Your task to perform on an android device: choose inbox layout in the gmail app Image 0: 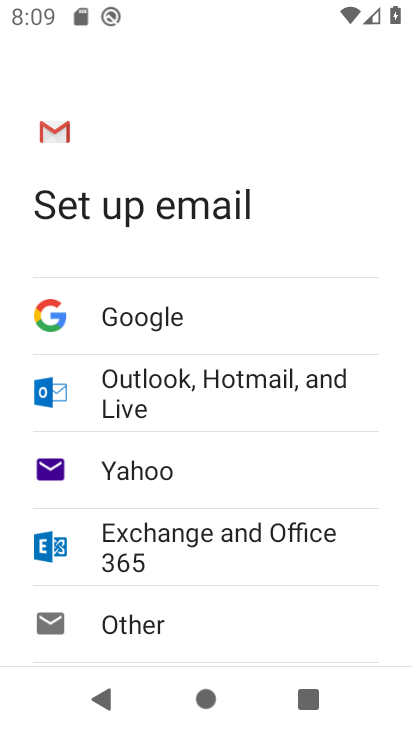
Step 0: press home button
Your task to perform on an android device: choose inbox layout in the gmail app Image 1: 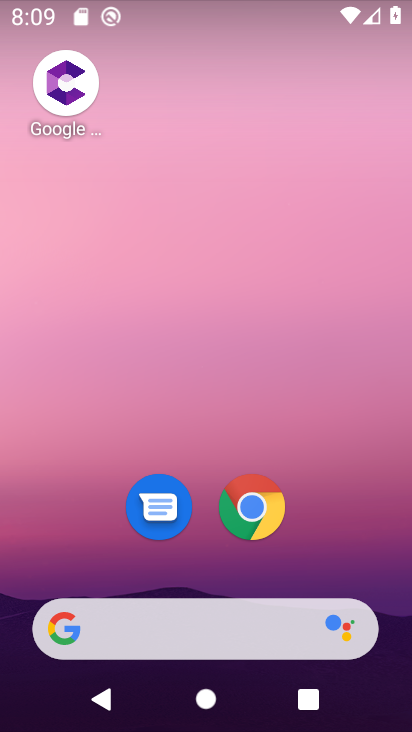
Step 1: drag from (334, 373) to (355, 91)
Your task to perform on an android device: choose inbox layout in the gmail app Image 2: 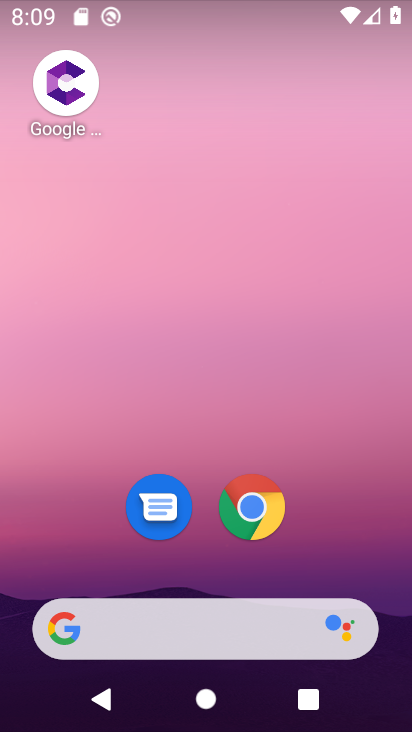
Step 2: drag from (321, 546) to (318, 115)
Your task to perform on an android device: choose inbox layout in the gmail app Image 3: 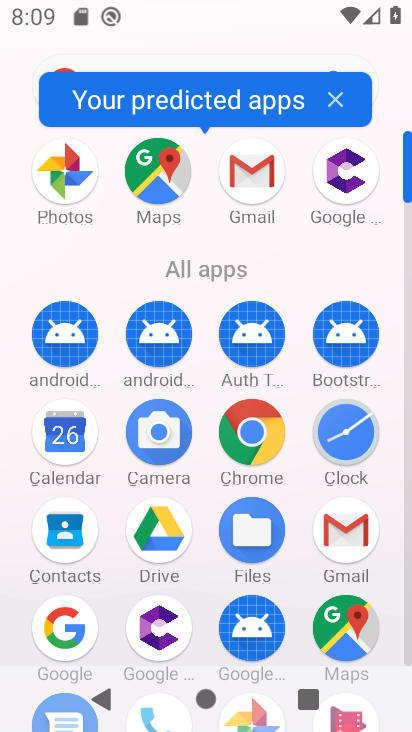
Step 3: click (261, 168)
Your task to perform on an android device: choose inbox layout in the gmail app Image 4: 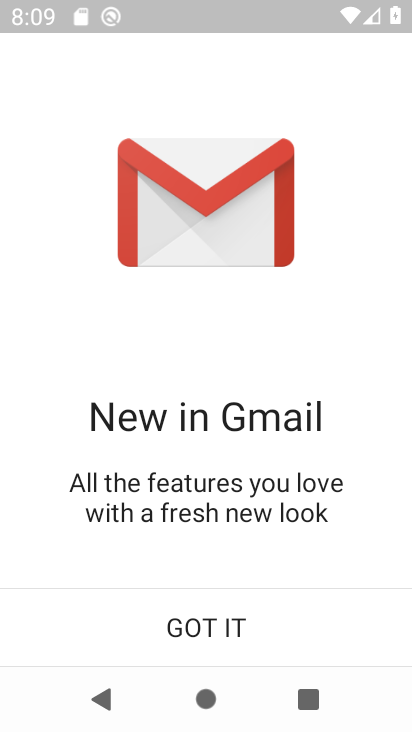
Step 4: click (204, 643)
Your task to perform on an android device: choose inbox layout in the gmail app Image 5: 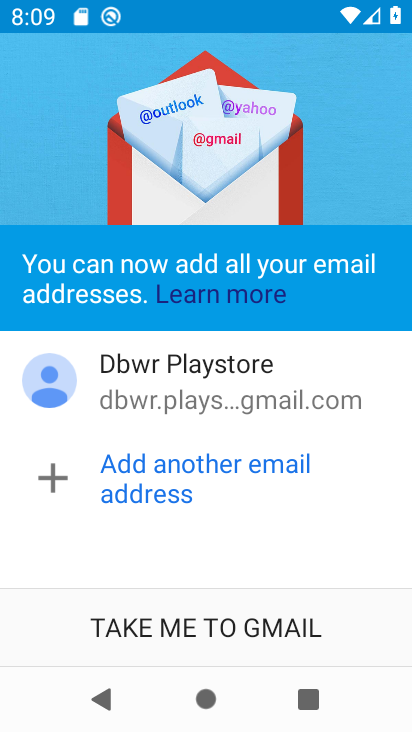
Step 5: click (202, 642)
Your task to perform on an android device: choose inbox layout in the gmail app Image 6: 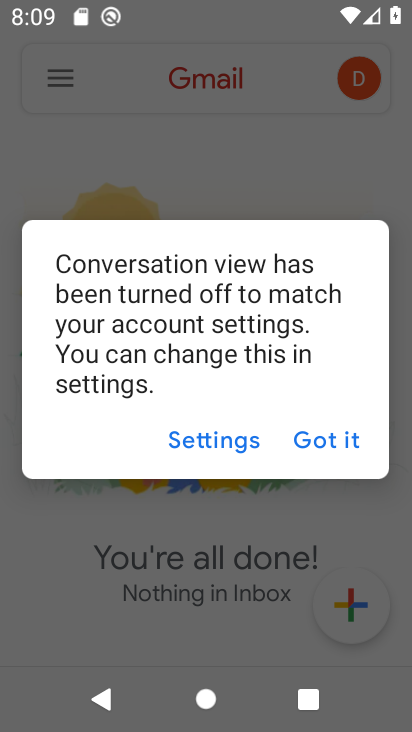
Step 6: click (319, 444)
Your task to perform on an android device: choose inbox layout in the gmail app Image 7: 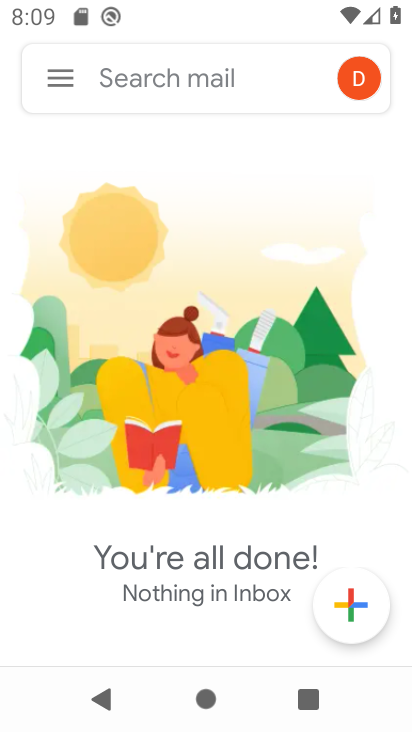
Step 7: click (73, 89)
Your task to perform on an android device: choose inbox layout in the gmail app Image 8: 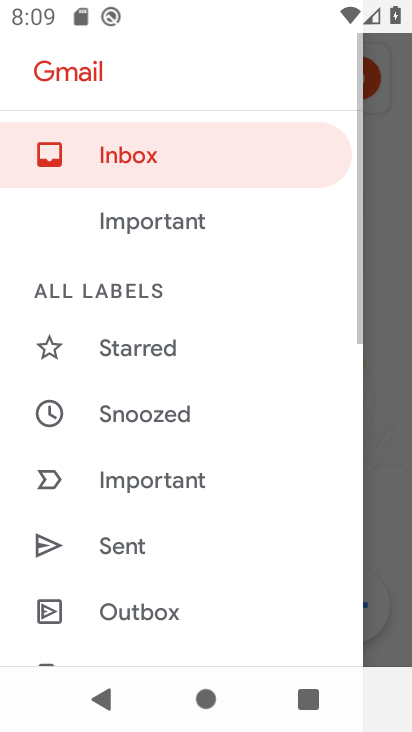
Step 8: drag from (189, 605) to (200, 158)
Your task to perform on an android device: choose inbox layout in the gmail app Image 9: 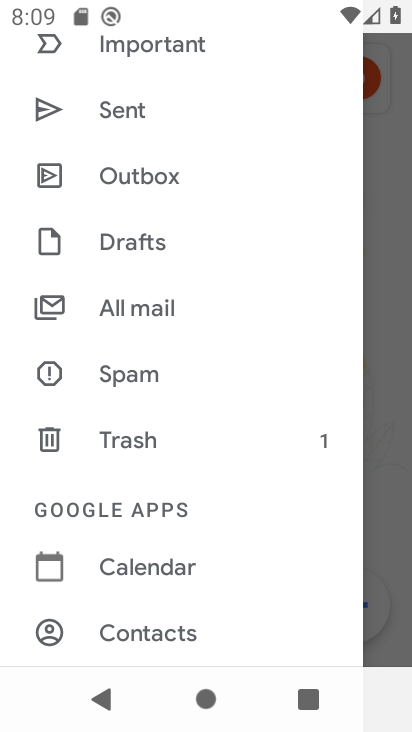
Step 9: drag from (244, 389) to (281, 92)
Your task to perform on an android device: choose inbox layout in the gmail app Image 10: 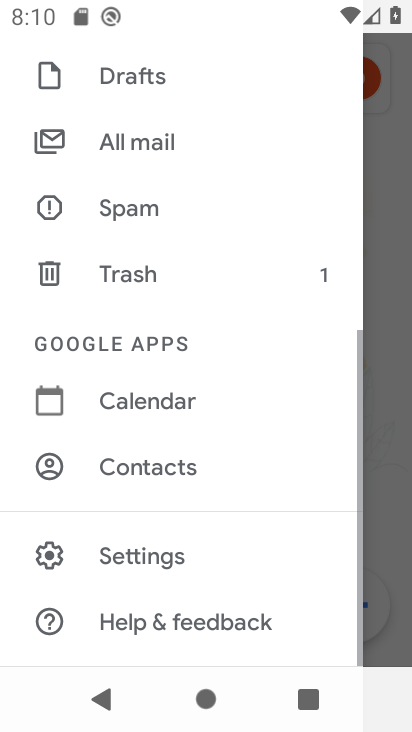
Step 10: click (229, 571)
Your task to perform on an android device: choose inbox layout in the gmail app Image 11: 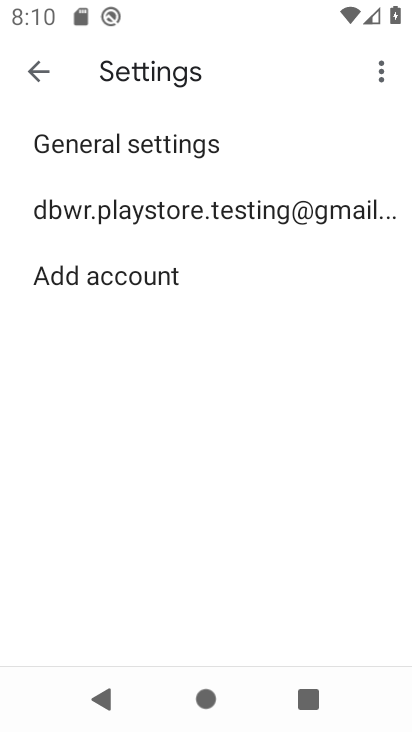
Step 11: click (218, 200)
Your task to perform on an android device: choose inbox layout in the gmail app Image 12: 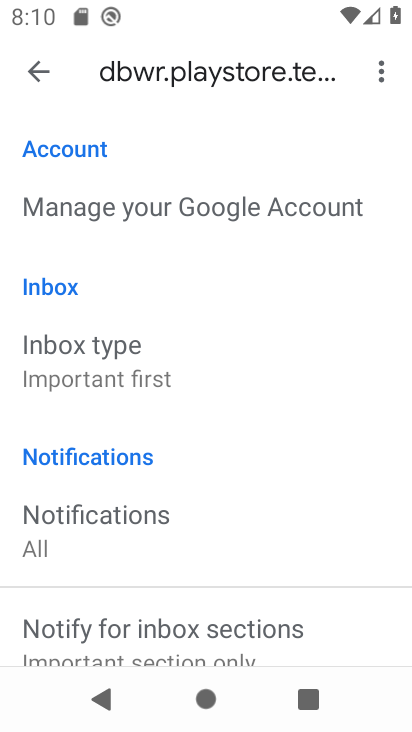
Step 12: click (195, 369)
Your task to perform on an android device: choose inbox layout in the gmail app Image 13: 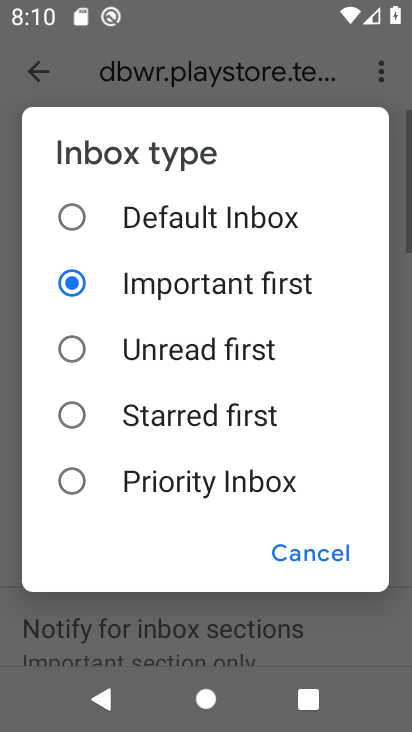
Step 13: task complete